Your task to perform on an android device: Toggle the flashlight Image 0: 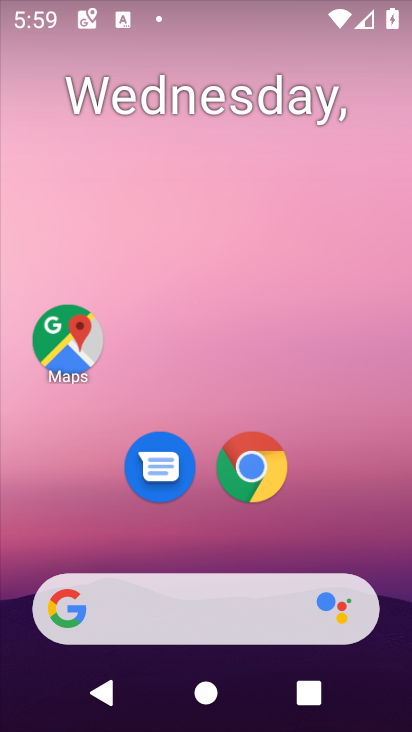
Step 0: drag from (257, 7) to (194, 544)
Your task to perform on an android device: Toggle the flashlight Image 1: 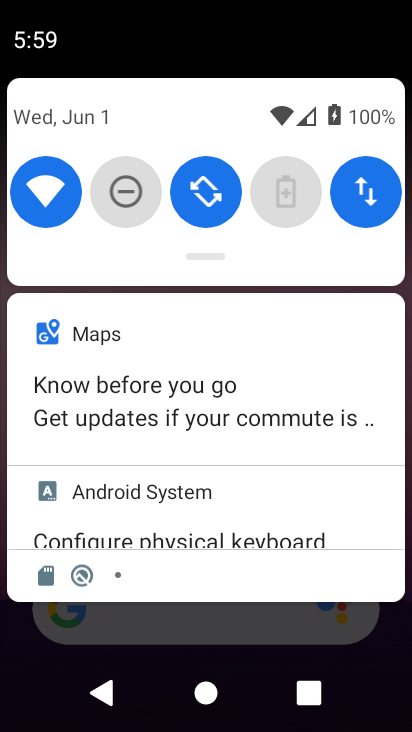
Step 1: task complete